Your task to perform on an android device: uninstall "Walmart Shopping & Grocery" Image 0: 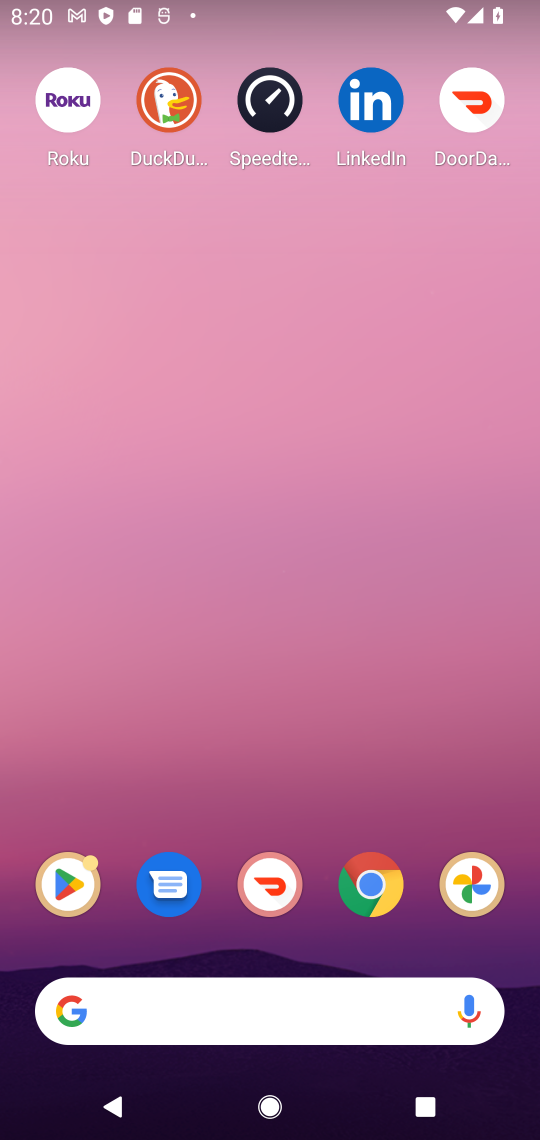
Step 0: click (73, 900)
Your task to perform on an android device: uninstall "Walmart Shopping & Grocery" Image 1: 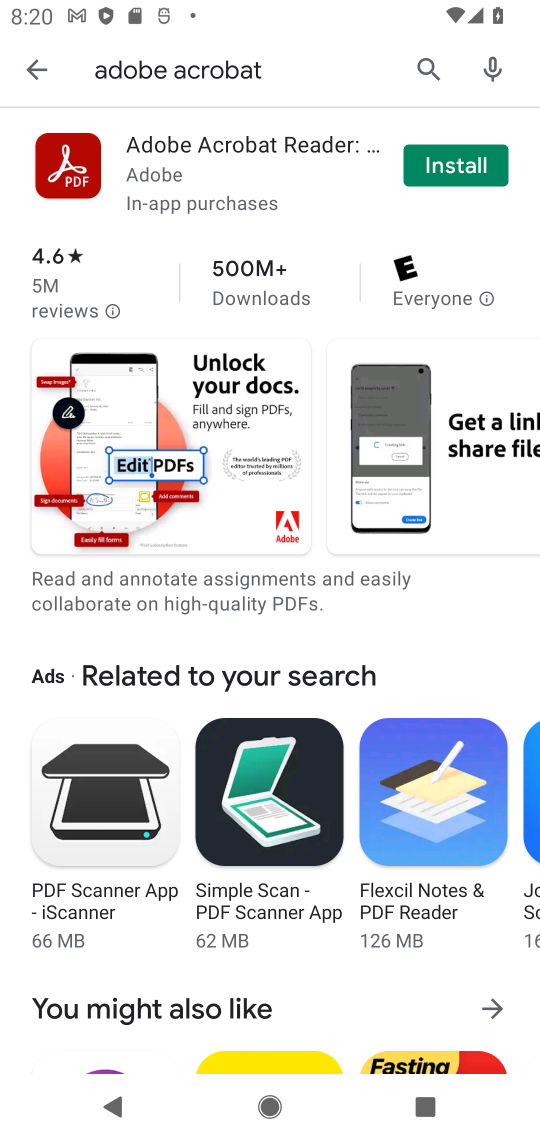
Step 1: click (425, 63)
Your task to perform on an android device: uninstall "Walmart Shopping & Grocery" Image 2: 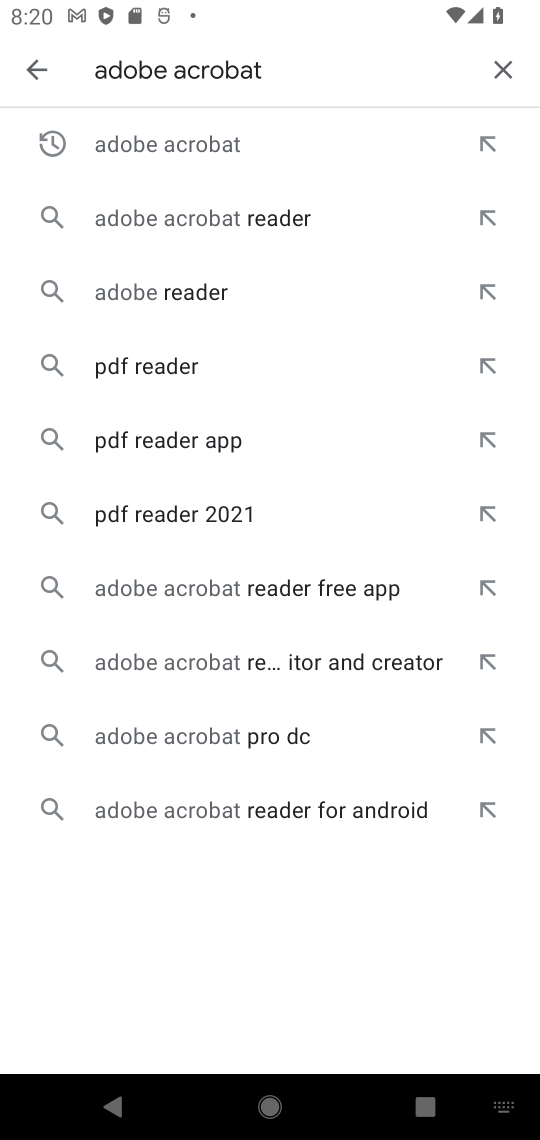
Step 2: click (513, 83)
Your task to perform on an android device: uninstall "Walmart Shopping & Grocery" Image 3: 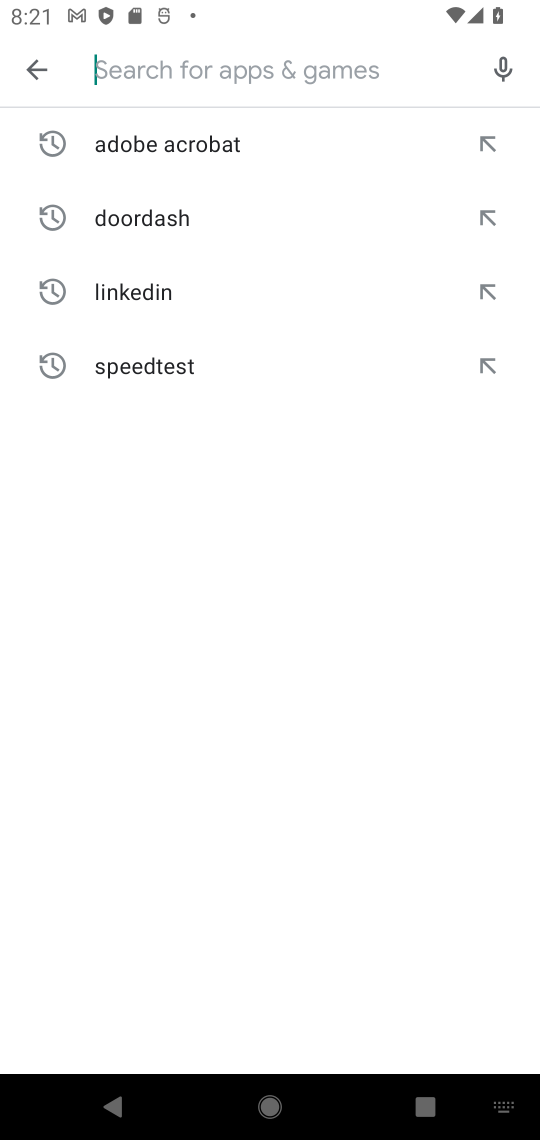
Step 3: type "walmart"
Your task to perform on an android device: uninstall "Walmart Shopping & Grocery" Image 4: 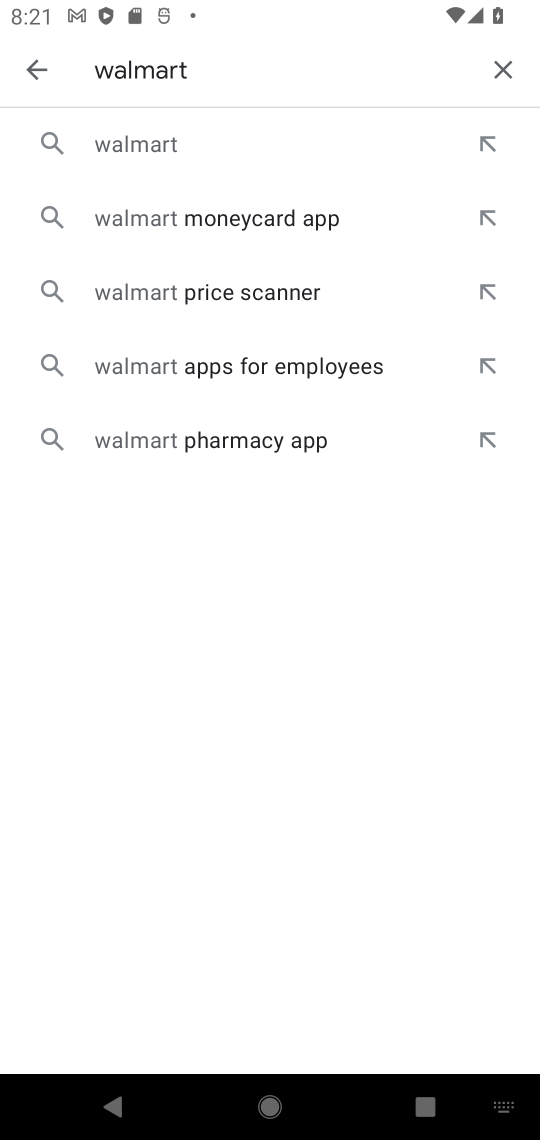
Step 4: click (186, 155)
Your task to perform on an android device: uninstall "Walmart Shopping & Grocery" Image 5: 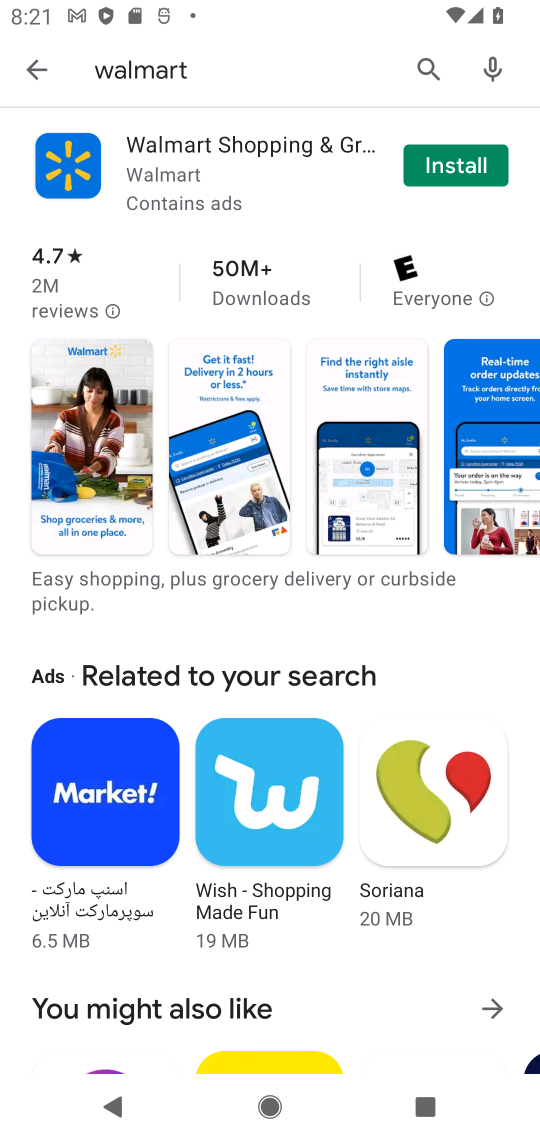
Step 5: task complete